Your task to perform on an android device: What's the weather going to be tomorrow? Image 0: 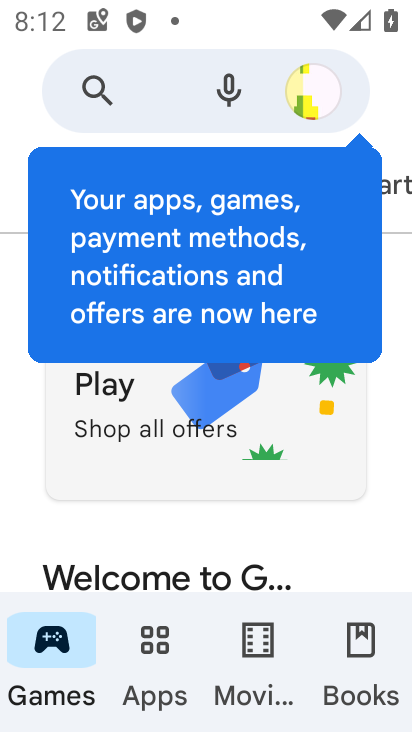
Step 0: press home button
Your task to perform on an android device: What's the weather going to be tomorrow? Image 1: 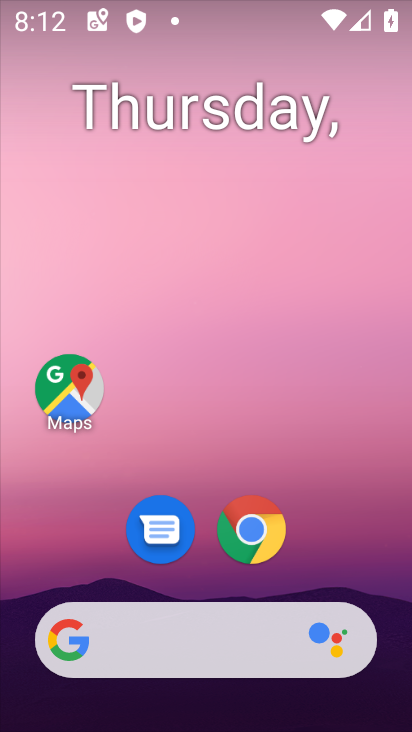
Step 1: drag from (229, 724) to (229, 154)
Your task to perform on an android device: What's the weather going to be tomorrow? Image 2: 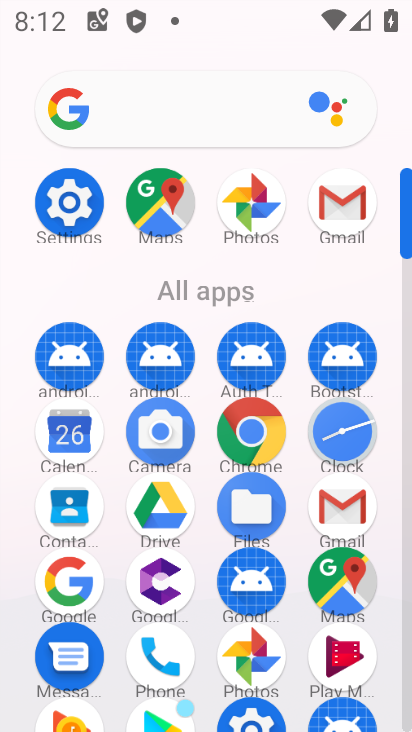
Step 2: click (75, 577)
Your task to perform on an android device: What's the weather going to be tomorrow? Image 3: 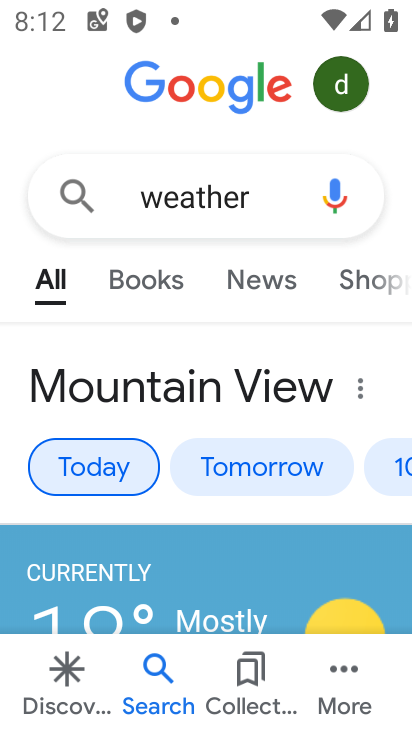
Step 3: click (254, 466)
Your task to perform on an android device: What's the weather going to be tomorrow? Image 4: 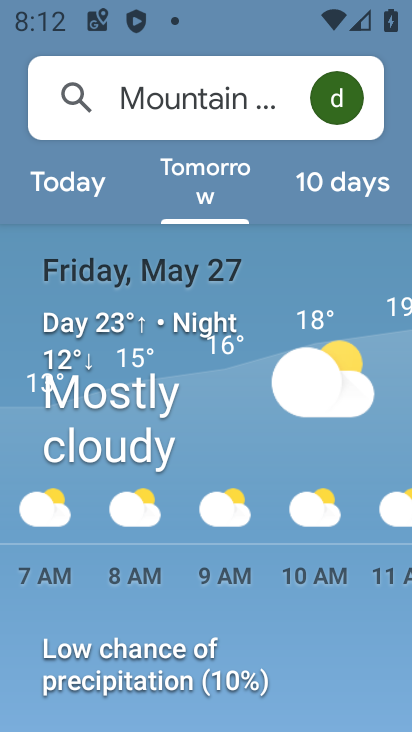
Step 4: task complete